Your task to perform on an android device: check android version Image 0: 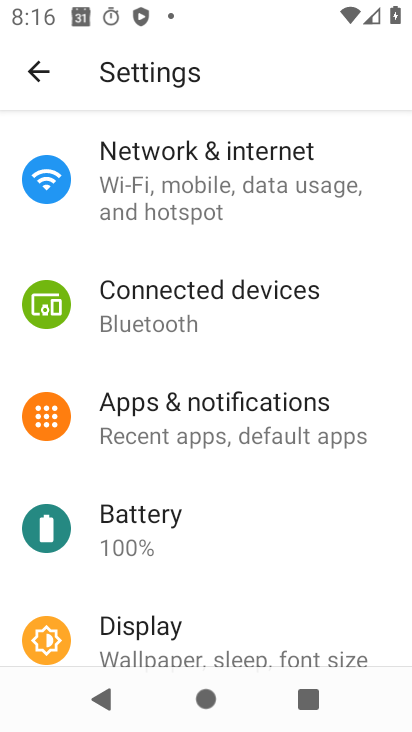
Step 0: drag from (178, 571) to (268, 83)
Your task to perform on an android device: check android version Image 1: 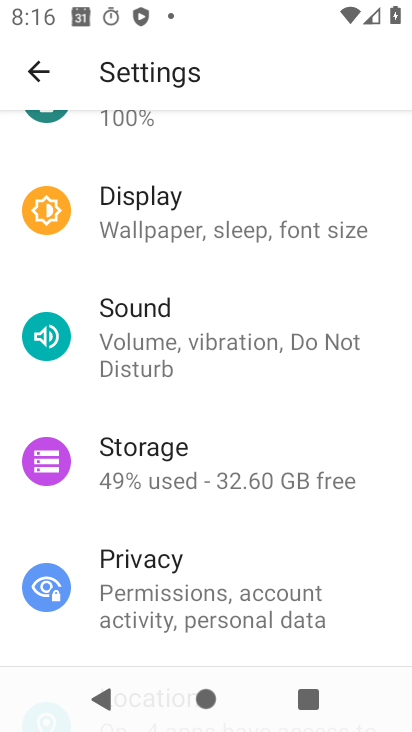
Step 1: drag from (217, 445) to (281, 0)
Your task to perform on an android device: check android version Image 2: 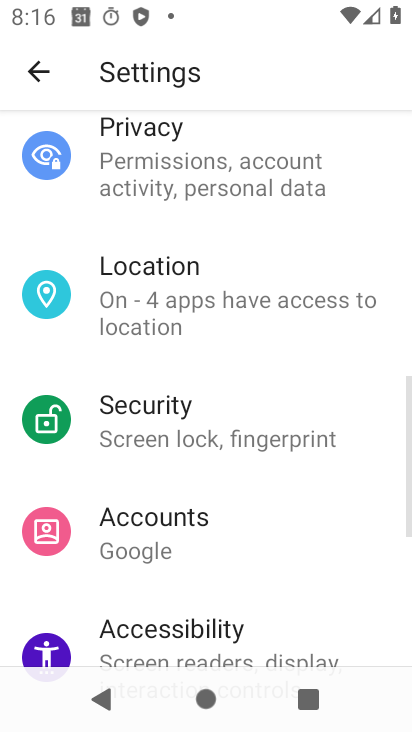
Step 2: drag from (231, 477) to (259, 77)
Your task to perform on an android device: check android version Image 3: 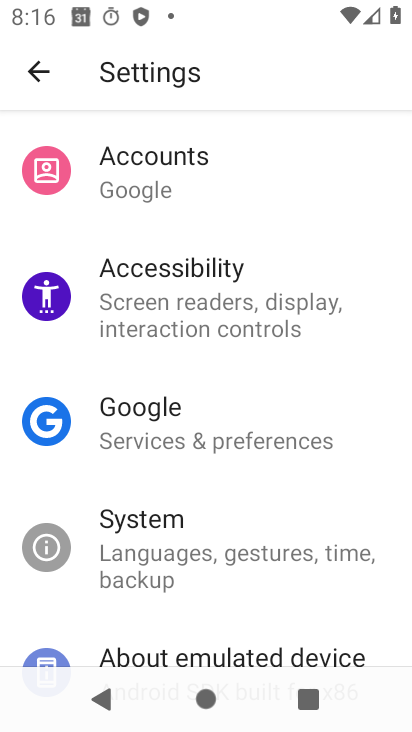
Step 3: drag from (217, 520) to (259, 93)
Your task to perform on an android device: check android version Image 4: 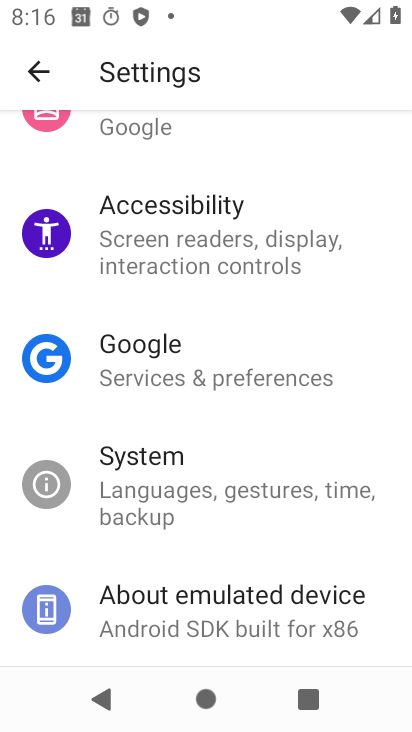
Step 4: drag from (171, 421) to (257, 12)
Your task to perform on an android device: check android version Image 5: 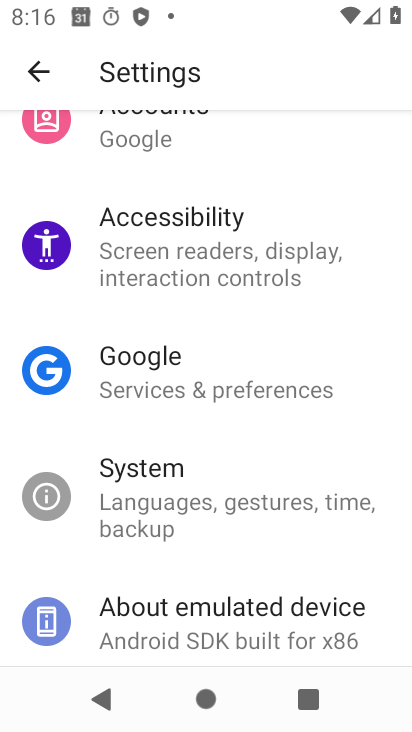
Step 5: click (207, 628)
Your task to perform on an android device: check android version Image 6: 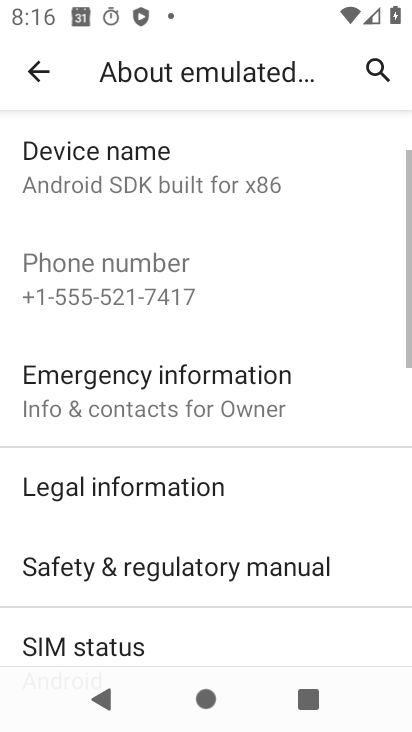
Step 6: drag from (178, 484) to (275, 266)
Your task to perform on an android device: check android version Image 7: 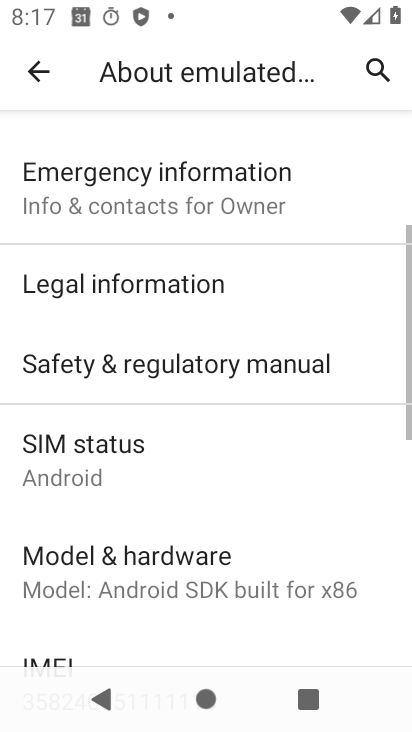
Step 7: drag from (175, 464) to (249, 191)
Your task to perform on an android device: check android version Image 8: 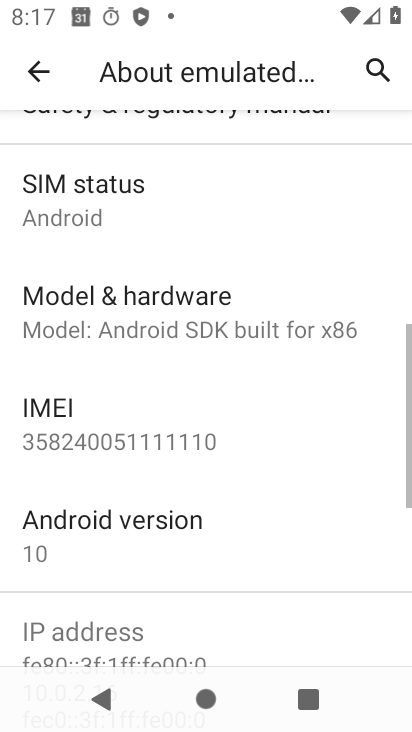
Step 8: drag from (172, 557) to (277, 131)
Your task to perform on an android device: check android version Image 9: 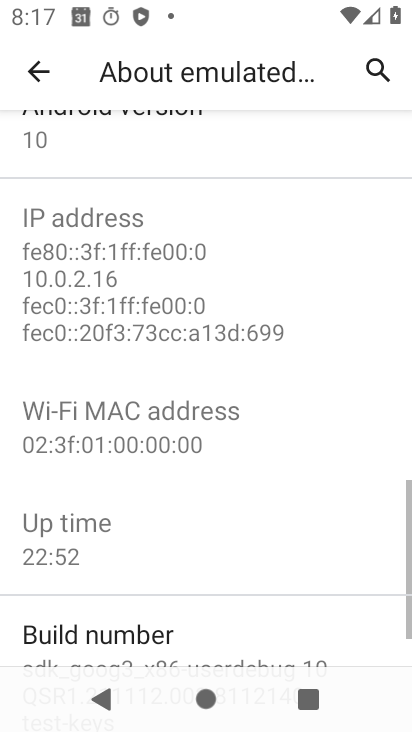
Step 9: drag from (195, 552) to (280, 165)
Your task to perform on an android device: check android version Image 10: 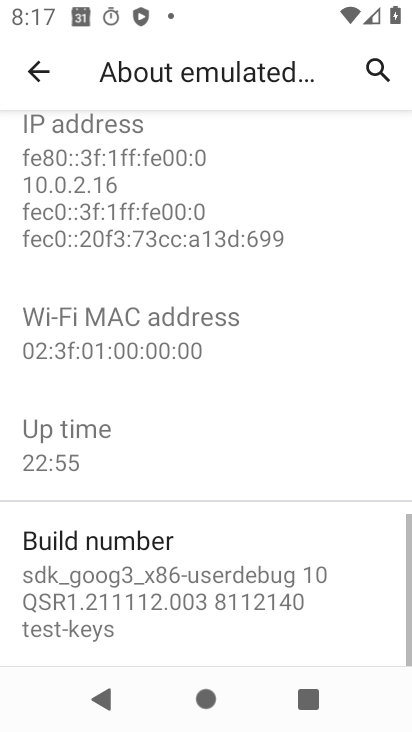
Step 10: drag from (194, 523) to (256, 229)
Your task to perform on an android device: check android version Image 11: 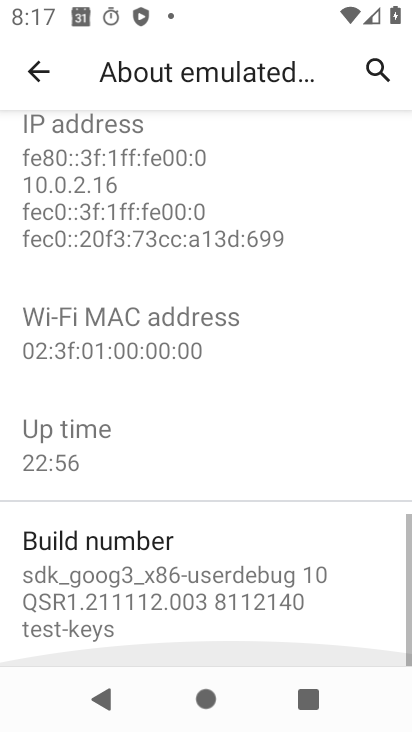
Step 11: drag from (258, 247) to (224, 669)
Your task to perform on an android device: check android version Image 12: 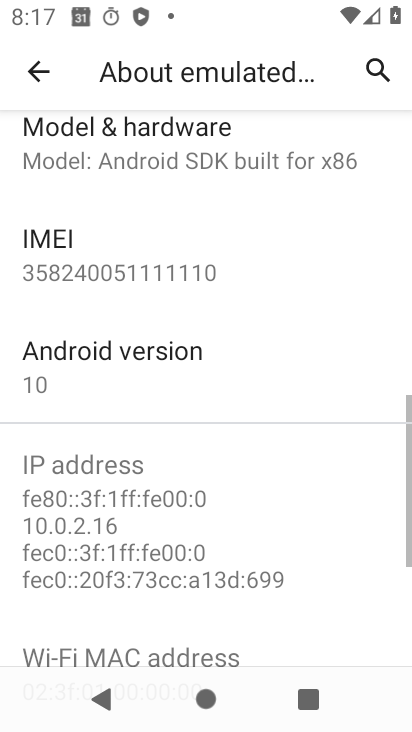
Step 12: click (102, 358)
Your task to perform on an android device: check android version Image 13: 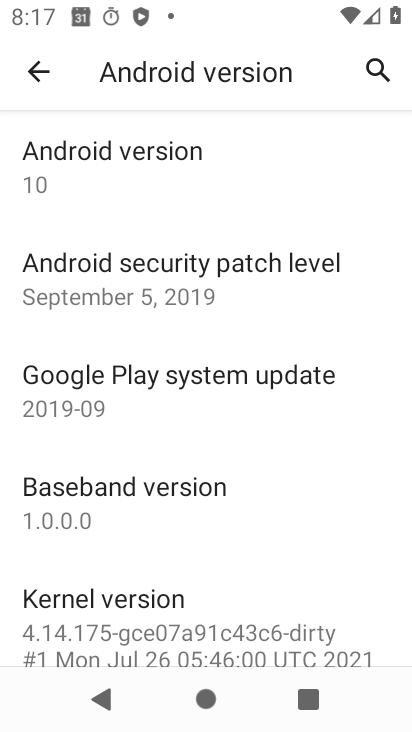
Step 13: task complete